Your task to perform on an android device: turn off location history Image 0: 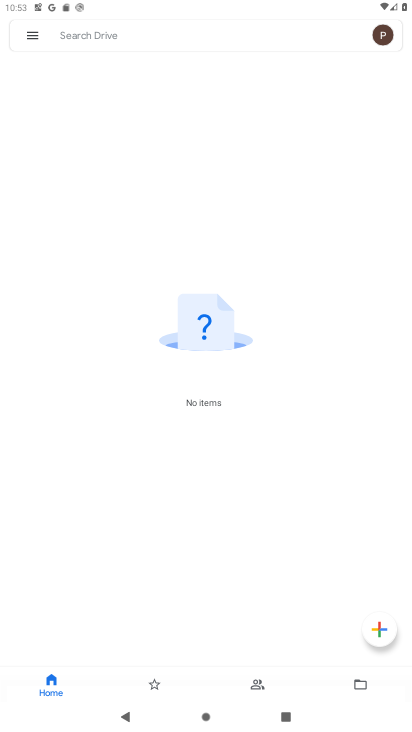
Step 0: press home button
Your task to perform on an android device: turn off location history Image 1: 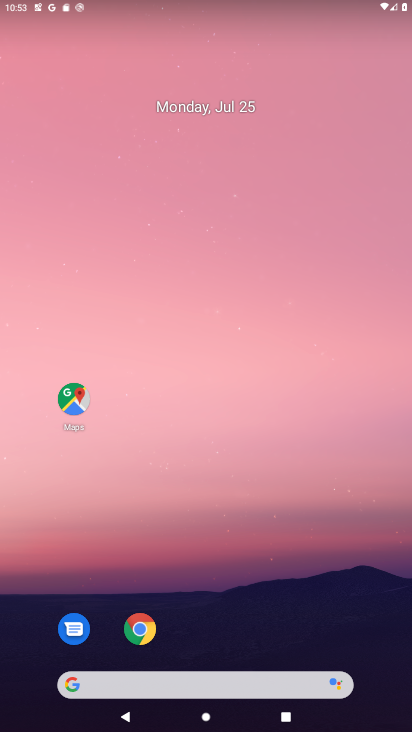
Step 1: drag from (215, 648) to (206, 88)
Your task to perform on an android device: turn off location history Image 2: 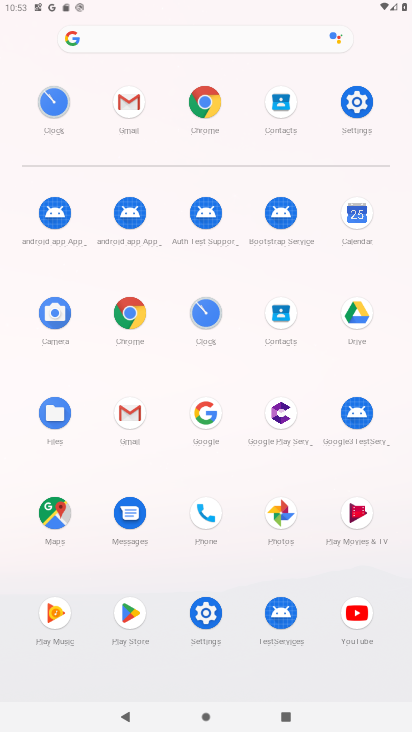
Step 2: click (364, 97)
Your task to perform on an android device: turn off location history Image 3: 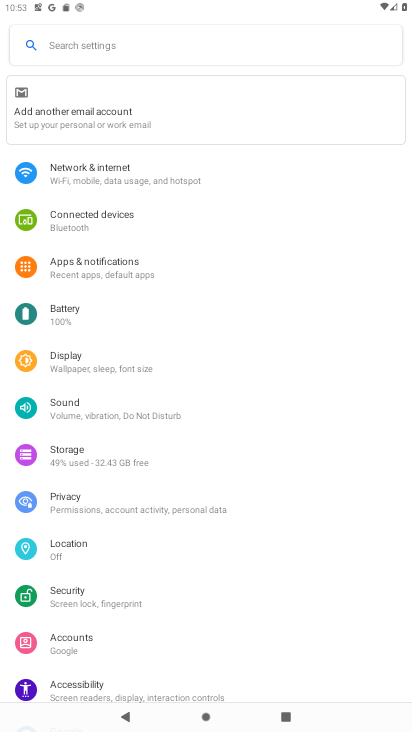
Step 3: click (103, 568)
Your task to perform on an android device: turn off location history Image 4: 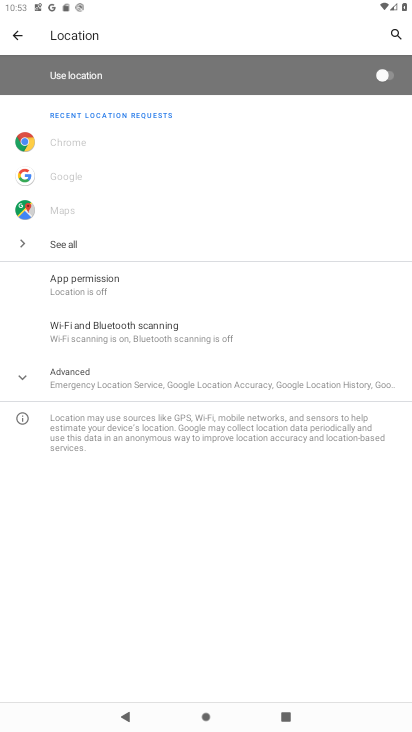
Step 4: click (80, 560)
Your task to perform on an android device: turn off location history Image 5: 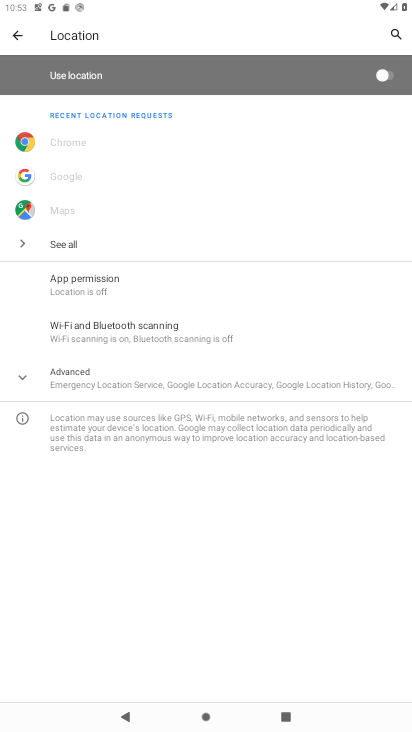
Step 5: task complete